Your task to perform on an android device: Do I have any events today? Image 0: 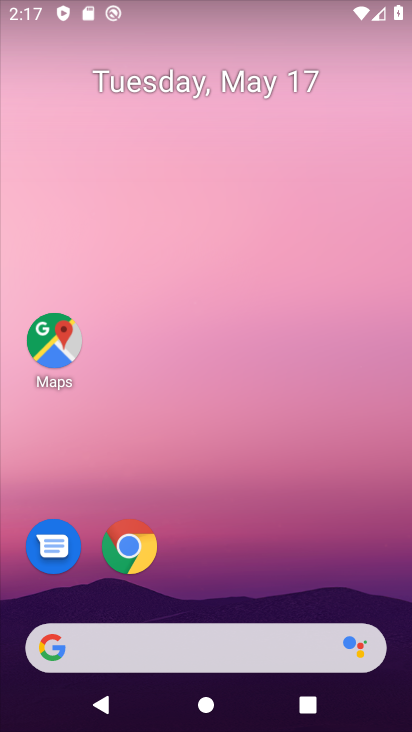
Step 0: drag from (288, 598) to (309, 200)
Your task to perform on an android device: Do I have any events today? Image 1: 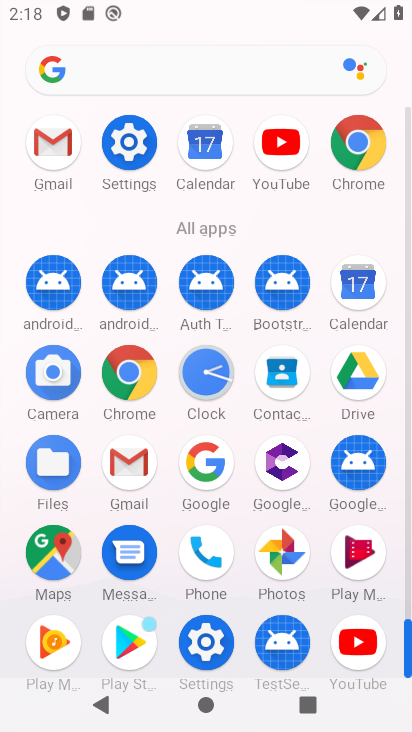
Step 1: click (357, 295)
Your task to perform on an android device: Do I have any events today? Image 2: 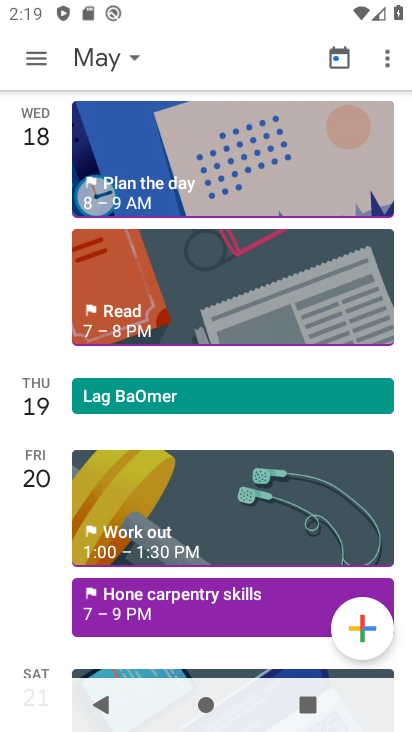
Step 2: task complete